Your task to perform on an android device: Open Reddit.com Image 0: 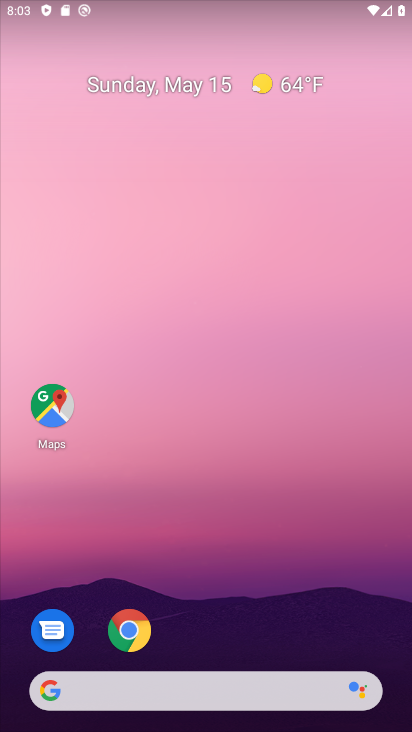
Step 0: drag from (308, 484) to (323, 9)
Your task to perform on an android device: Open Reddit.com Image 1: 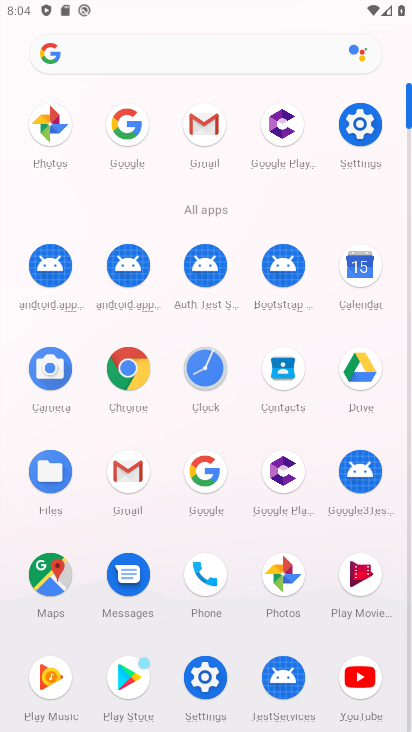
Step 1: click (132, 373)
Your task to perform on an android device: Open Reddit.com Image 2: 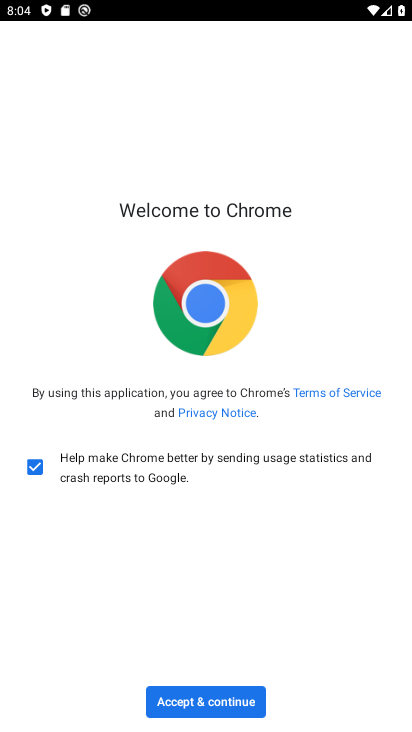
Step 2: click (213, 704)
Your task to perform on an android device: Open Reddit.com Image 3: 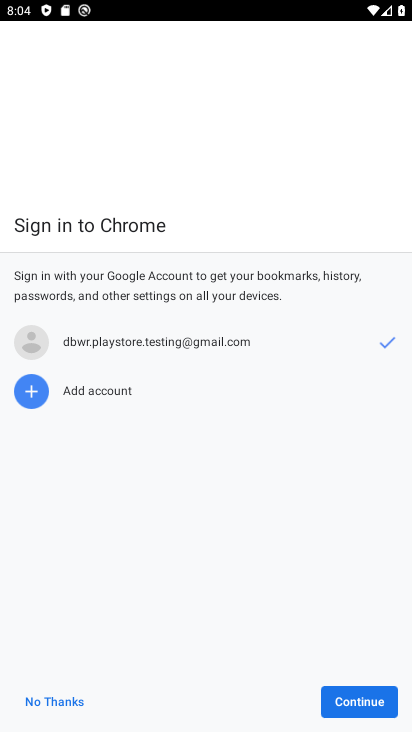
Step 3: click (353, 702)
Your task to perform on an android device: Open Reddit.com Image 4: 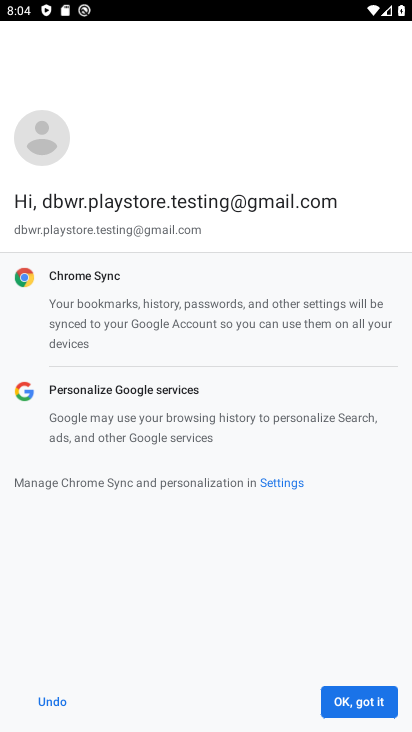
Step 4: click (353, 703)
Your task to perform on an android device: Open Reddit.com Image 5: 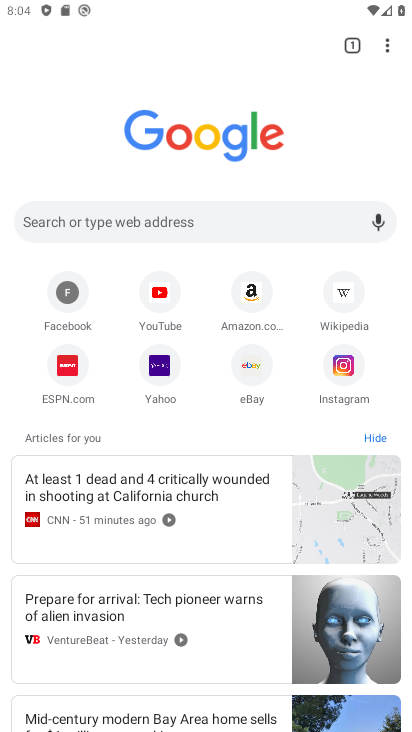
Step 5: click (175, 233)
Your task to perform on an android device: Open Reddit.com Image 6: 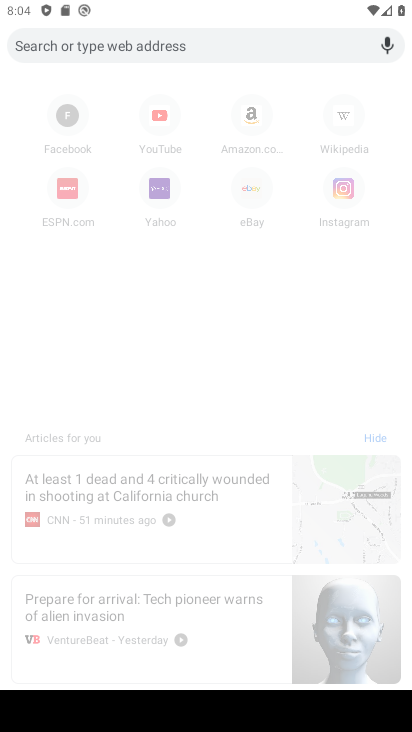
Step 6: type "reddit"
Your task to perform on an android device: Open Reddit.com Image 7: 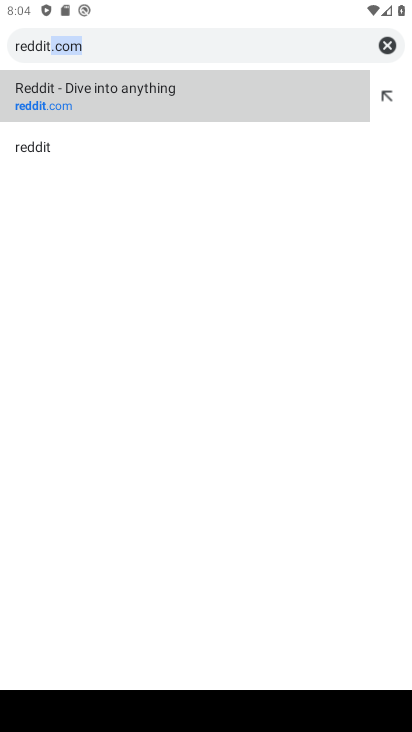
Step 7: click (59, 99)
Your task to perform on an android device: Open Reddit.com Image 8: 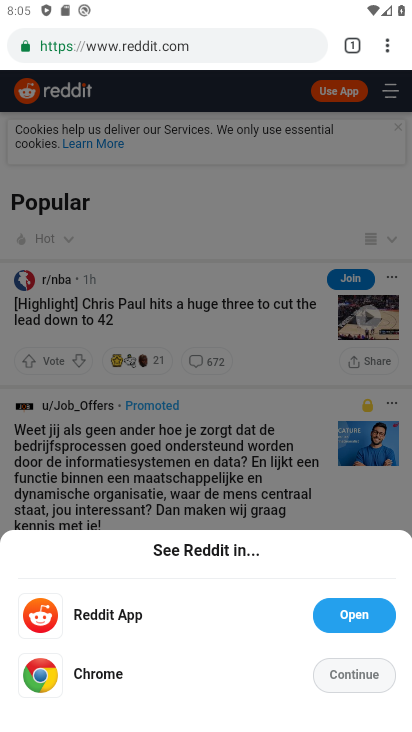
Step 8: task complete